Your task to perform on an android device: Open calendar and show me the fourth week of next month Image 0: 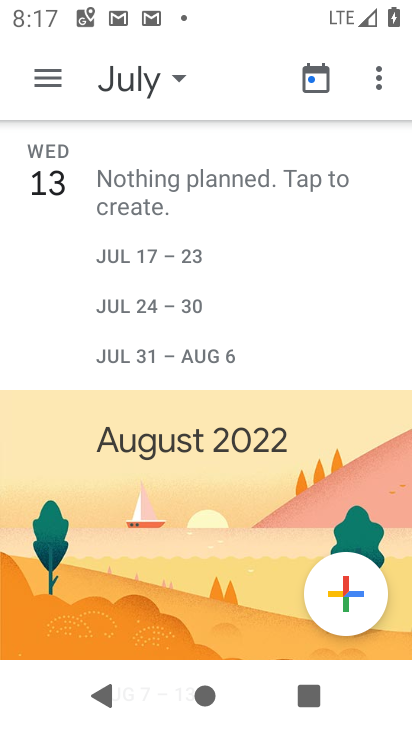
Step 0: press home button
Your task to perform on an android device: Open calendar and show me the fourth week of next month Image 1: 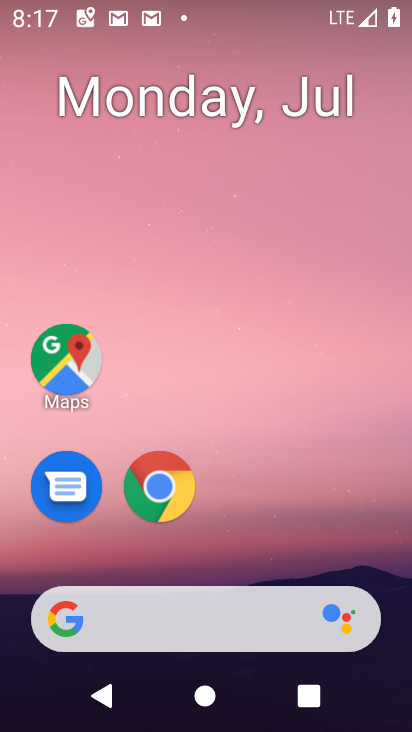
Step 1: drag from (357, 548) to (357, 155)
Your task to perform on an android device: Open calendar and show me the fourth week of next month Image 2: 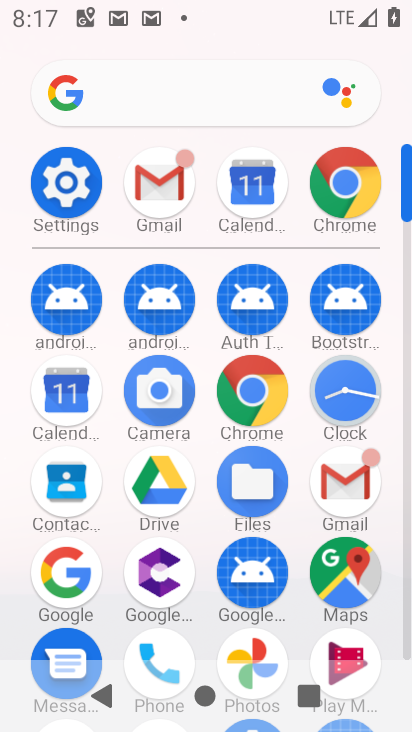
Step 2: click (75, 392)
Your task to perform on an android device: Open calendar and show me the fourth week of next month Image 3: 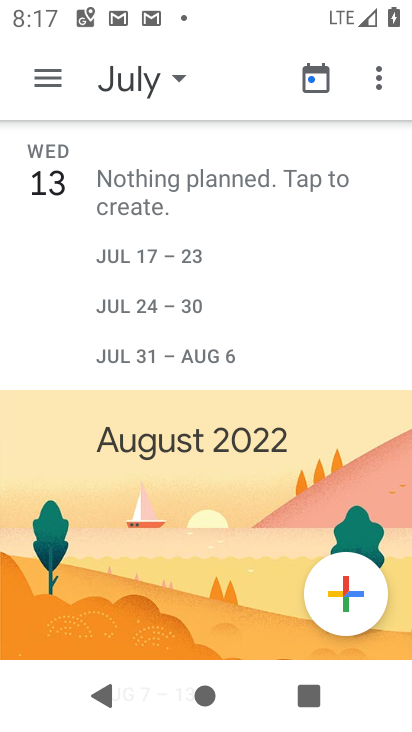
Step 3: click (180, 77)
Your task to perform on an android device: Open calendar and show me the fourth week of next month Image 4: 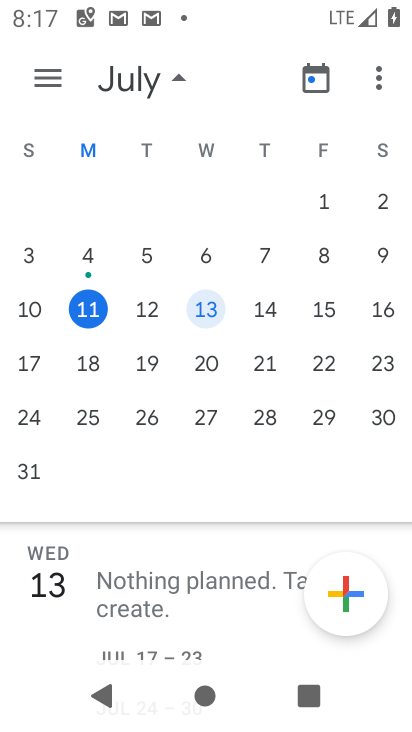
Step 4: drag from (390, 173) to (11, 198)
Your task to perform on an android device: Open calendar and show me the fourth week of next month Image 5: 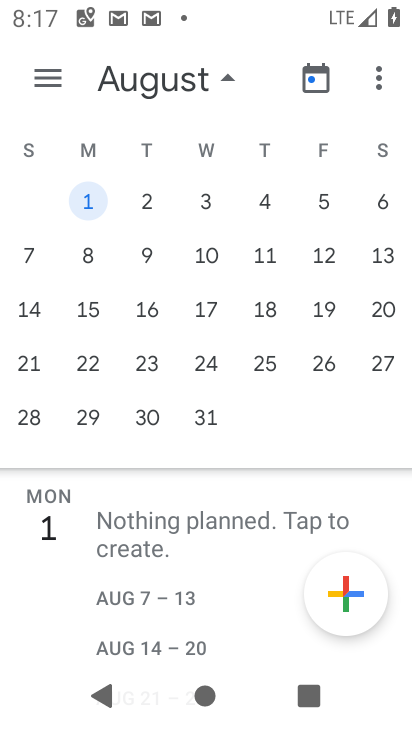
Step 5: click (85, 367)
Your task to perform on an android device: Open calendar and show me the fourth week of next month Image 6: 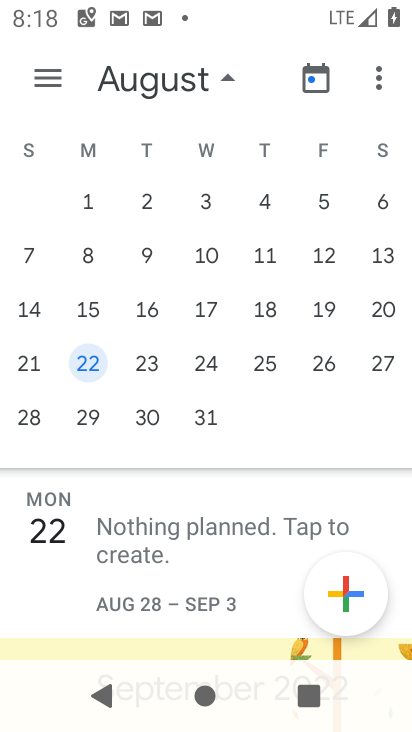
Step 6: task complete